Your task to perform on an android device: check out phone information Image 0: 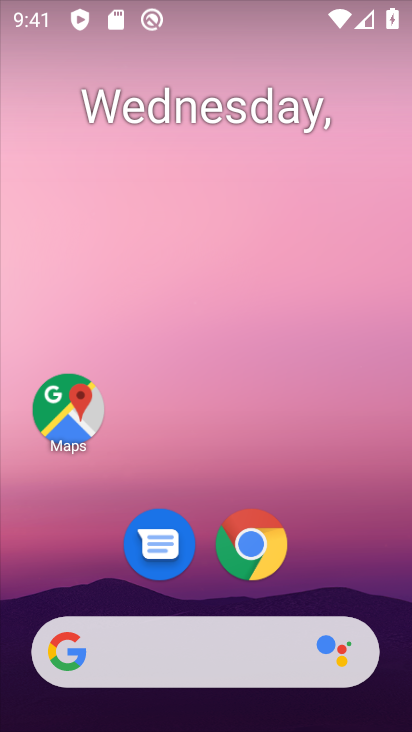
Step 0: drag from (309, 517) to (259, 8)
Your task to perform on an android device: check out phone information Image 1: 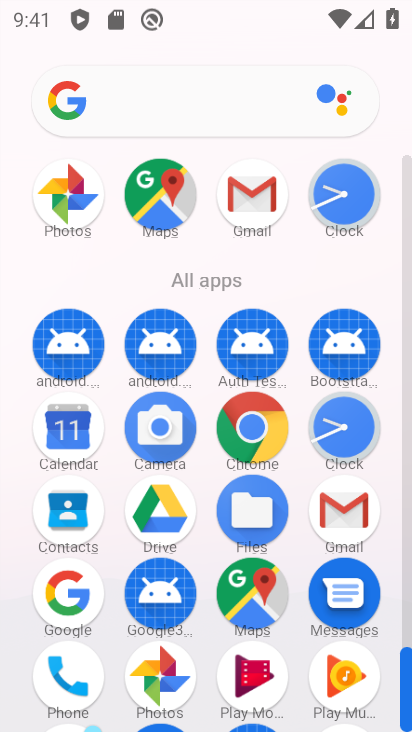
Step 1: drag from (251, 532) to (178, 191)
Your task to perform on an android device: check out phone information Image 2: 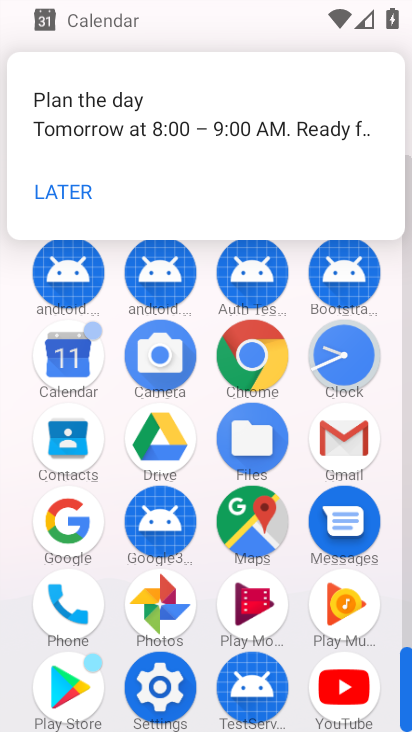
Step 2: click (143, 690)
Your task to perform on an android device: check out phone information Image 3: 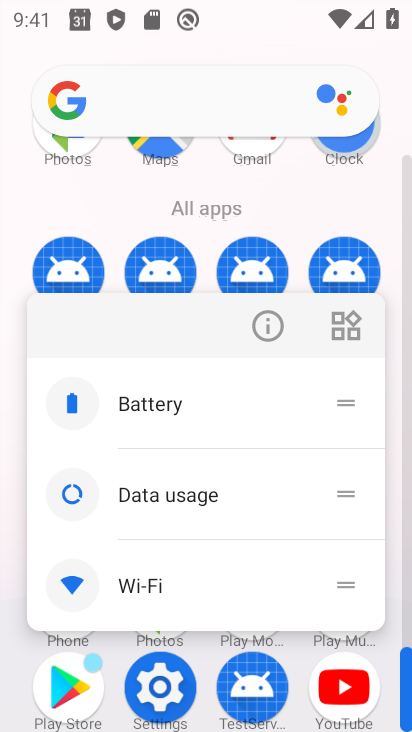
Step 3: click (143, 674)
Your task to perform on an android device: check out phone information Image 4: 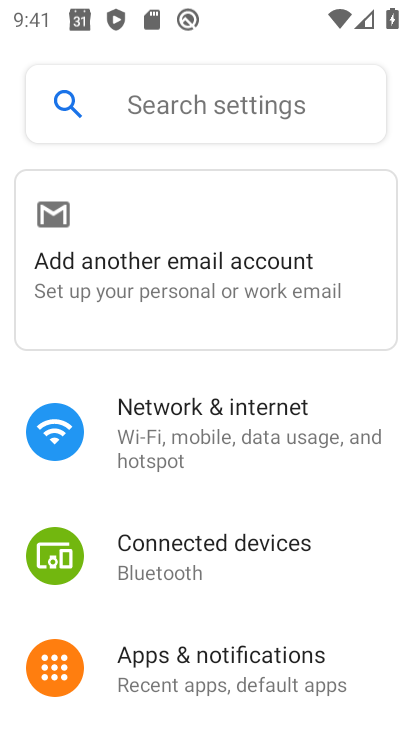
Step 4: drag from (270, 650) to (290, 124)
Your task to perform on an android device: check out phone information Image 5: 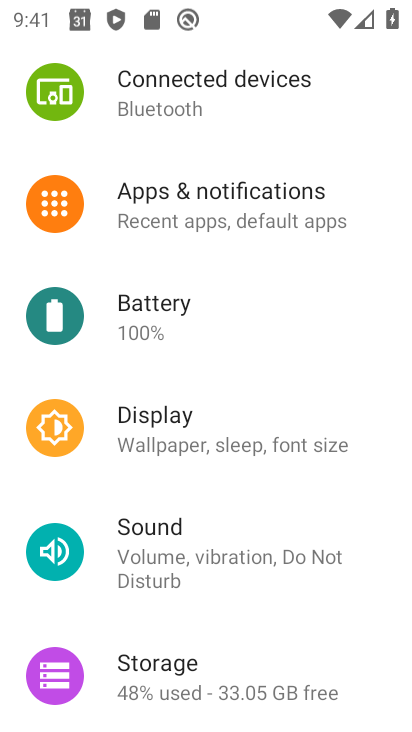
Step 5: drag from (211, 606) to (312, 121)
Your task to perform on an android device: check out phone information Image 6: 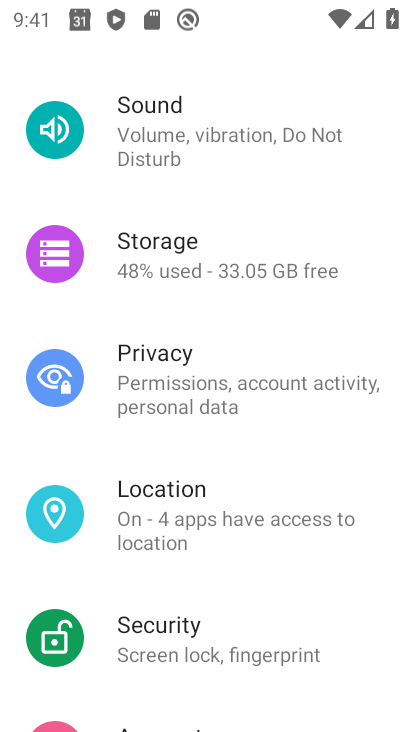
Step 6: drag from (225, 632) to (234, 215)
Your task to perform on an android device: check out phone information Image 7: 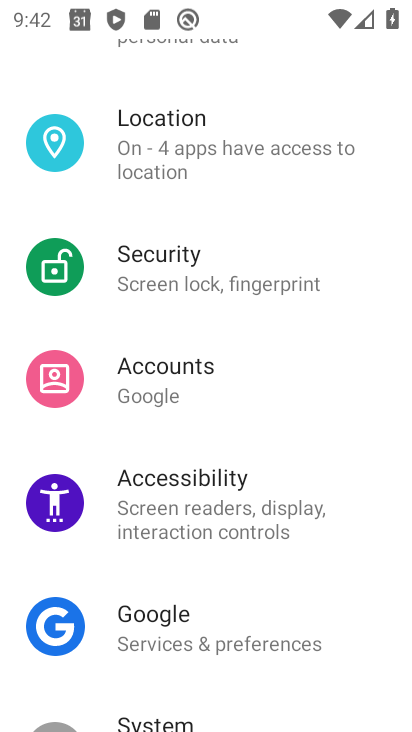
Step 7: drag from (200, 562) to (240, 116)
Your task to perform on an android device: check out phone information Image 8: 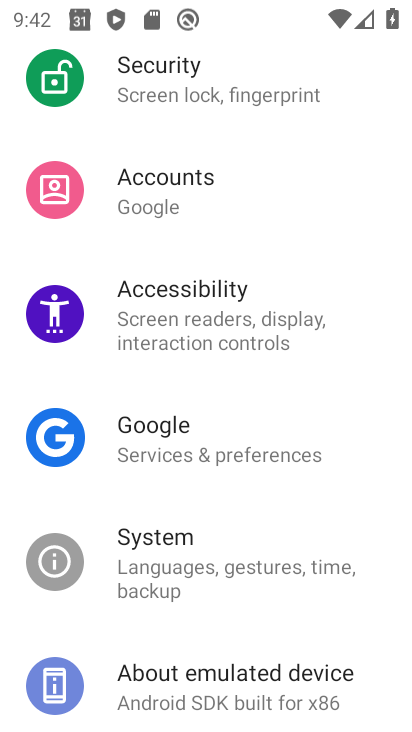
Step 8: click (271, 693)
Your task to perform on an android device: check out phone information Image 9: 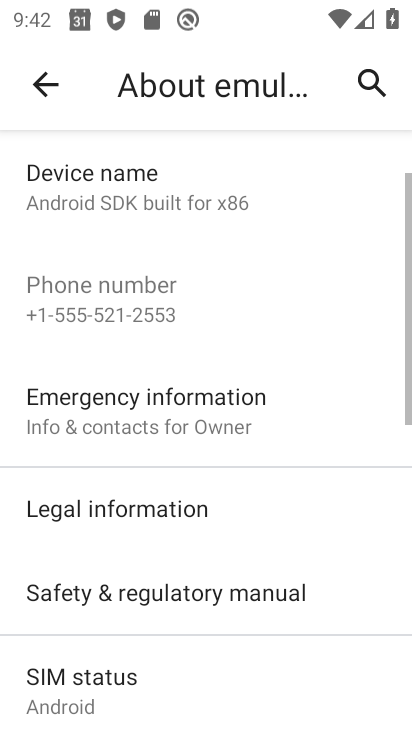
Step 9: task complete